Your task to perform on an android device: change your default location settings in chrome Image 0: 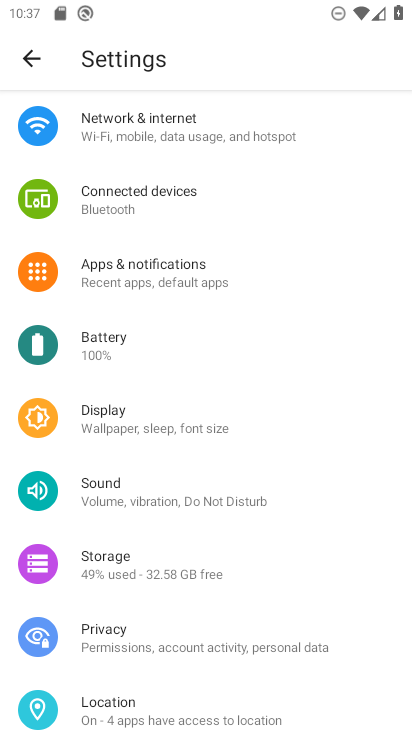
Step 0: press home button
Your task to perform on an android device: change your default location settings in chrome Image 1: 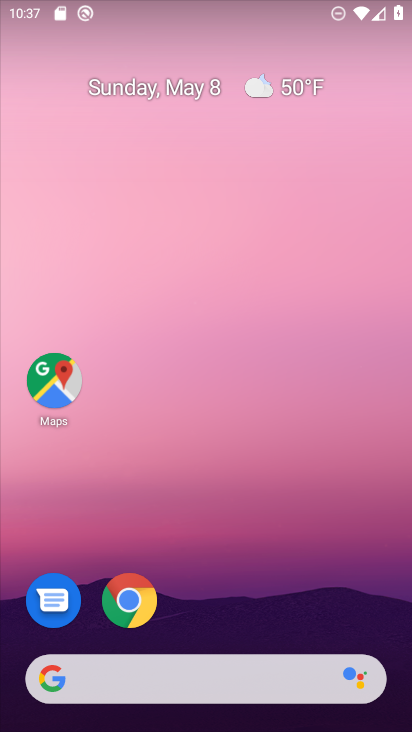
Step 1: click (127, 601)
Your task to perform on an android device: change your default location settings in chrome Image 2: 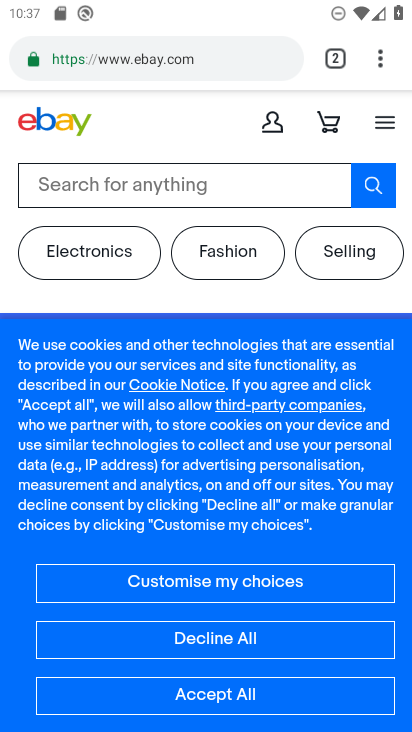
Step 2: click (380, 66)
Your task to perform on an android device: change your default location settings in chrome Image 3: 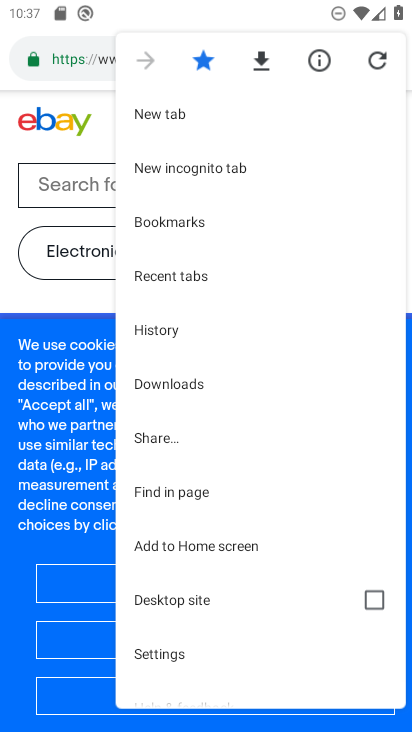
Step 3: click (170, 653)
Your task to perform on an android device: change your default location settings in chrome Image 4: 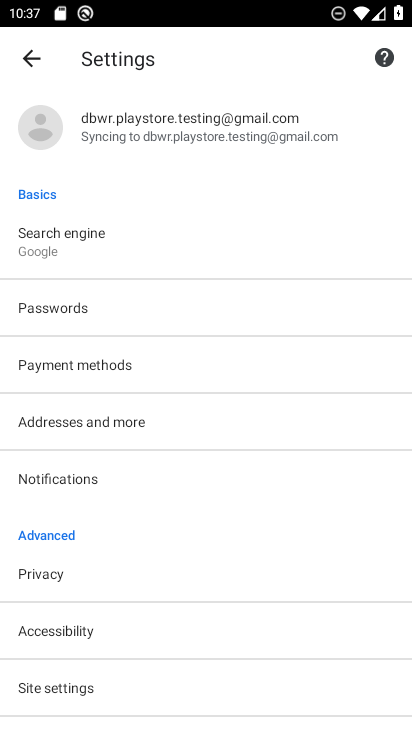
Step 4: drag from (104, 659) to (123, 451)
Your task to perform on an android device: change your default location settings in chrome Image 5: 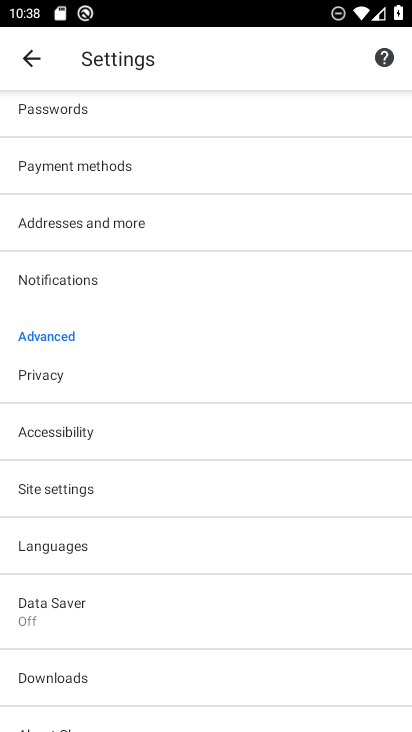
Step 5: click (68, 482)
Your task to perform on an android device: change your default location settings in chrome Image 6: 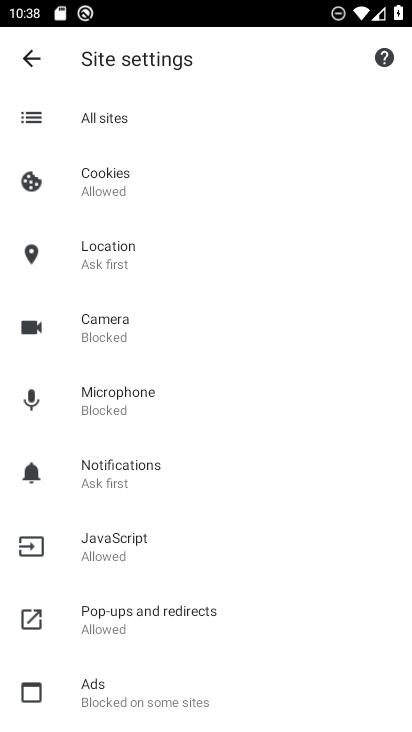
Step 6: click (102, 250)
Your task to perform on an android device: change your default location settings in chrome Image 7: 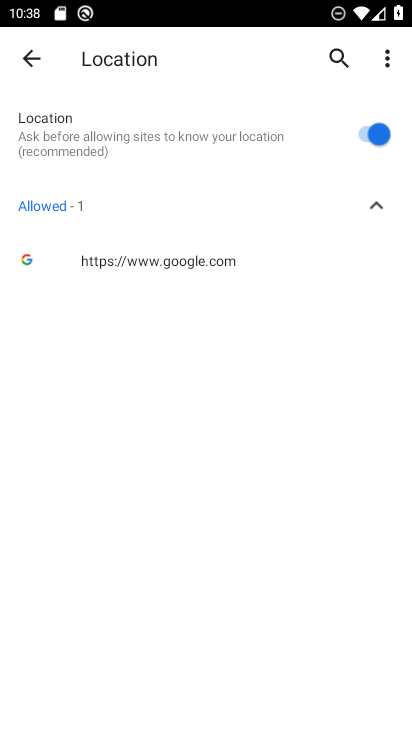
Step 7: click (369, 133)
Your task to perform on an android device: change your default location settings in chrome Image 8: 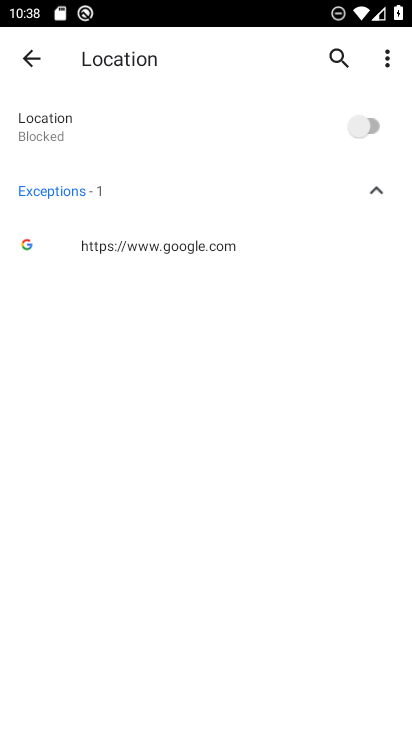
Step 8: task complete